Your task to perform on an android device: empty trash in the gmail app Image 0: 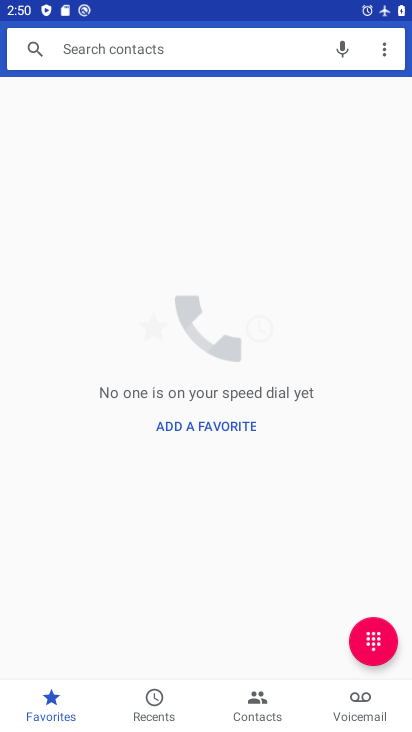
Step 0: press home button
Your task to perform on an android device: empty trash in the gmail app Image 1: 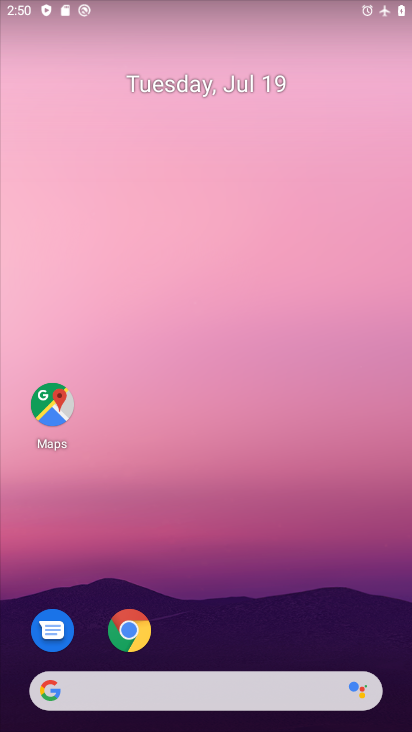
Step 1: drag from (253, 582) to (241, 47)
Your task to perform on an android device: empty trash in the gmail app Image 2: 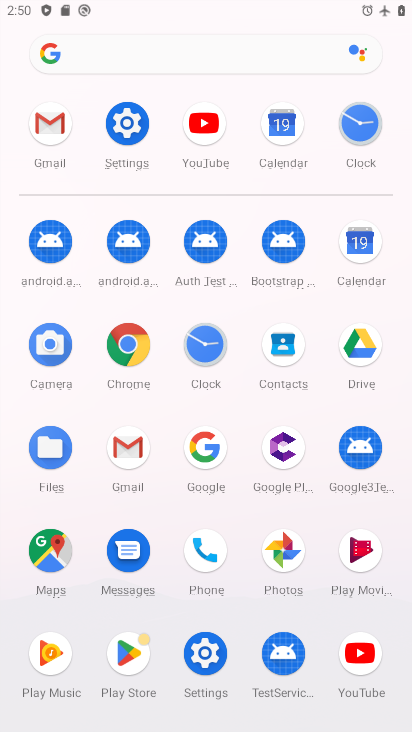
Step 2: click (47, 131)
Your task to perform on an android device: empty trash in the gmail app Image 3: 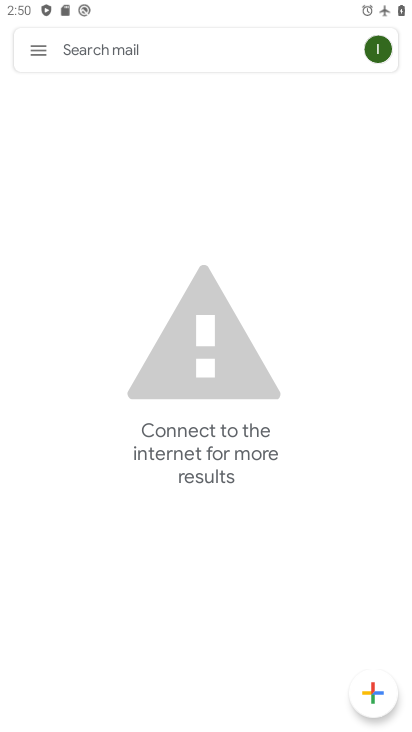
Step 3: click (38, 46)
Your task to perform on an android device: empty trash in the gmail app Image 4: 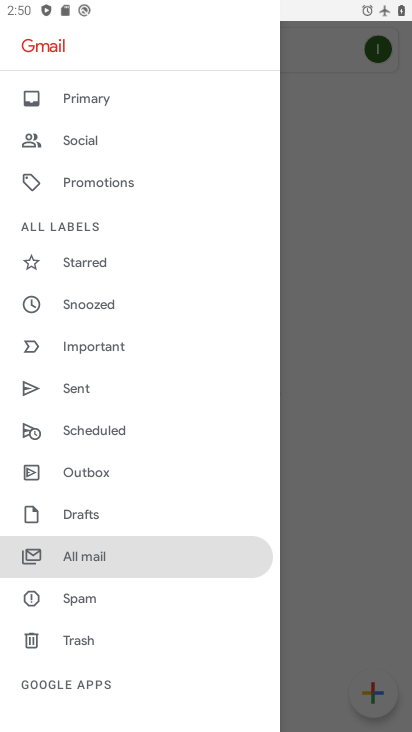
Step 4: click (82, 636)
Your task to perform on an android device: empty trash in the gmail app Image 5: 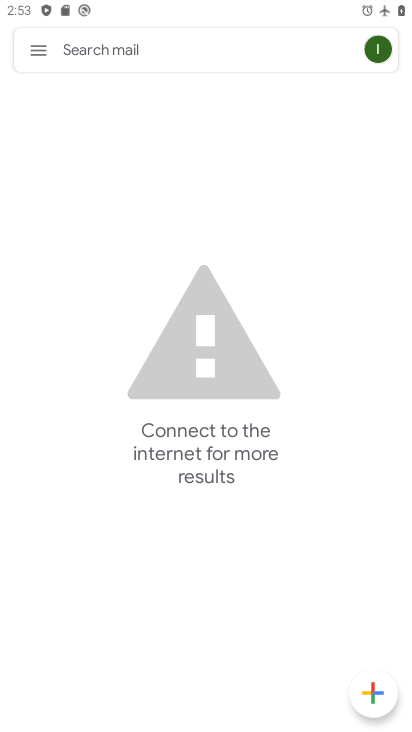
Step 5: task complete